Your task to perform on an android device: set default search engine in the chrome app Image 0: 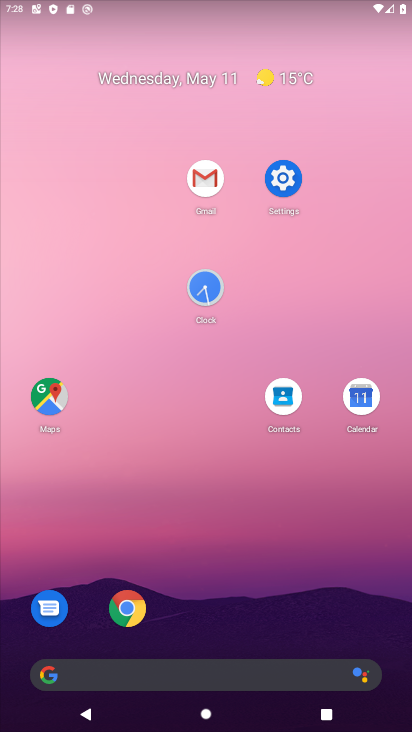
Step 0: click (127, 615)
Your task to perform on an android device: set default search engine in the chrome app Image 1: 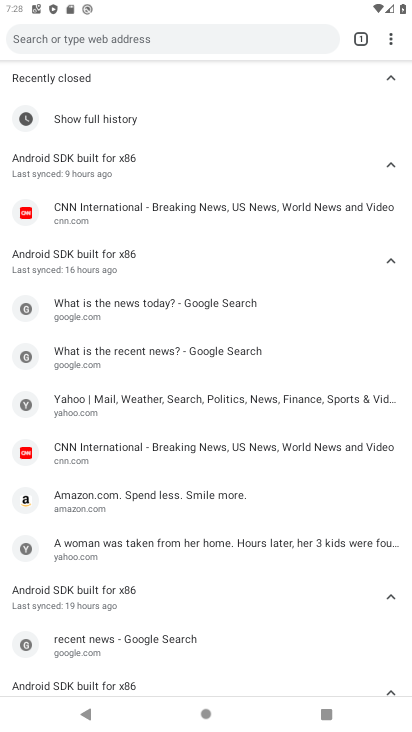
Step 1: click (391, 42)
Your task to perform on an android device: set default search engine in the chrome app Image 2: 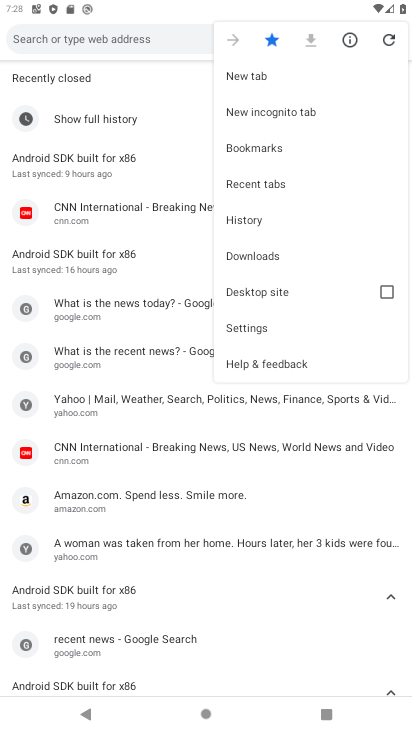
Step 2: click (261, 326)
Your task to perform on an android device: set default search engine in the chrome app Image 3: 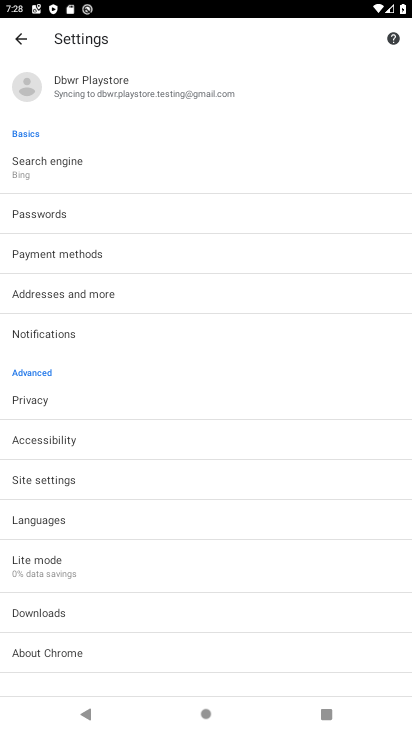
Step 3: click (143, 172)
Your task to perform on an android device: set default search engine in the chrome app Image 4: 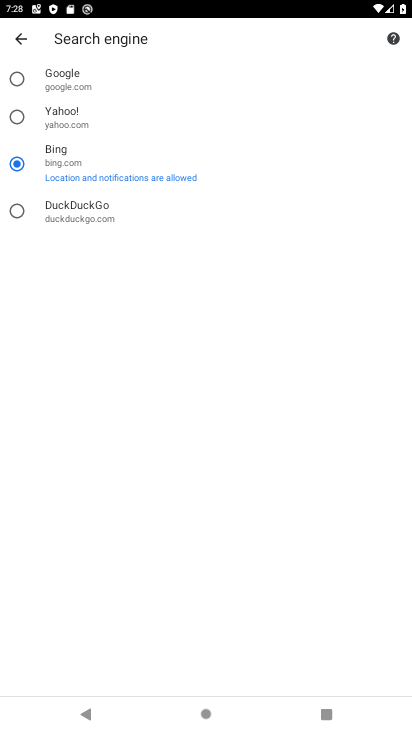
Step 4: click (94, 92)
Your task to perform on an android device: set default search engine in the chrome app Image 5: 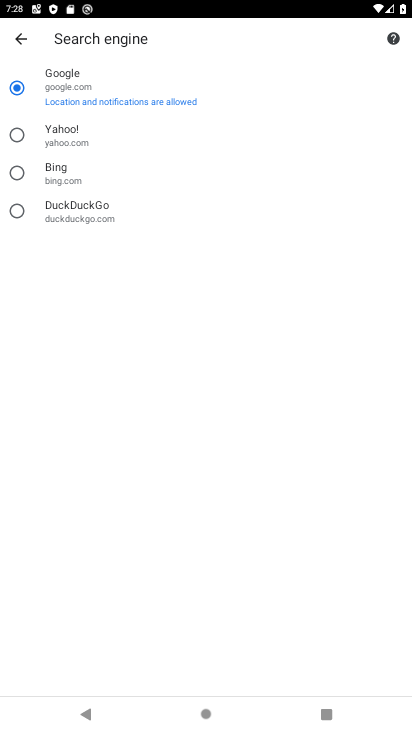
Step 5: task complete